Your task to perform on an android device: turn on showing notifications on the lock screen Image 0: 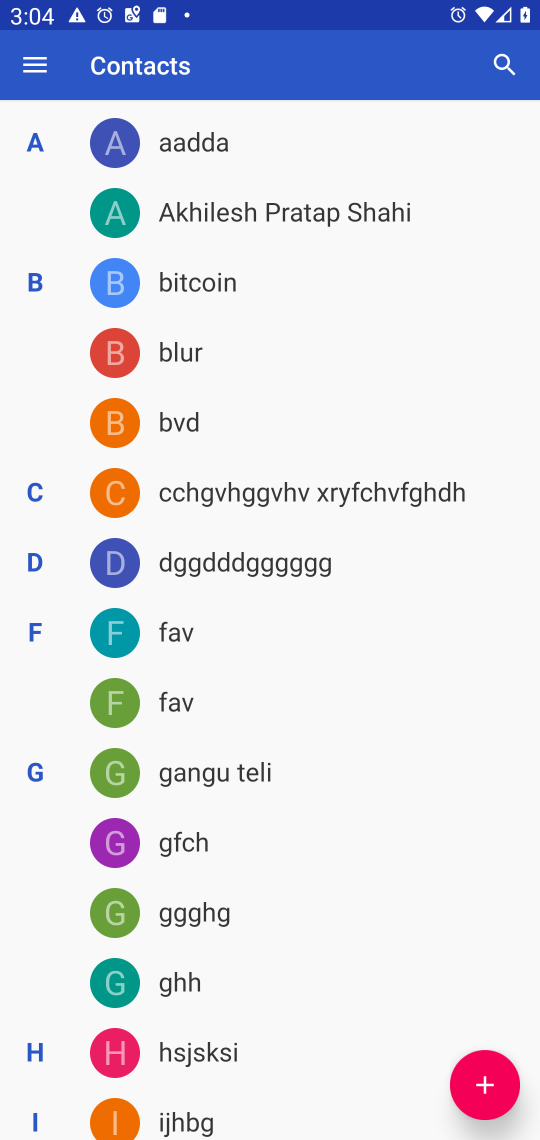
Step 0: press home button
Your task to perform on an android device: turn on showing notifications on the lock screen Image 1: 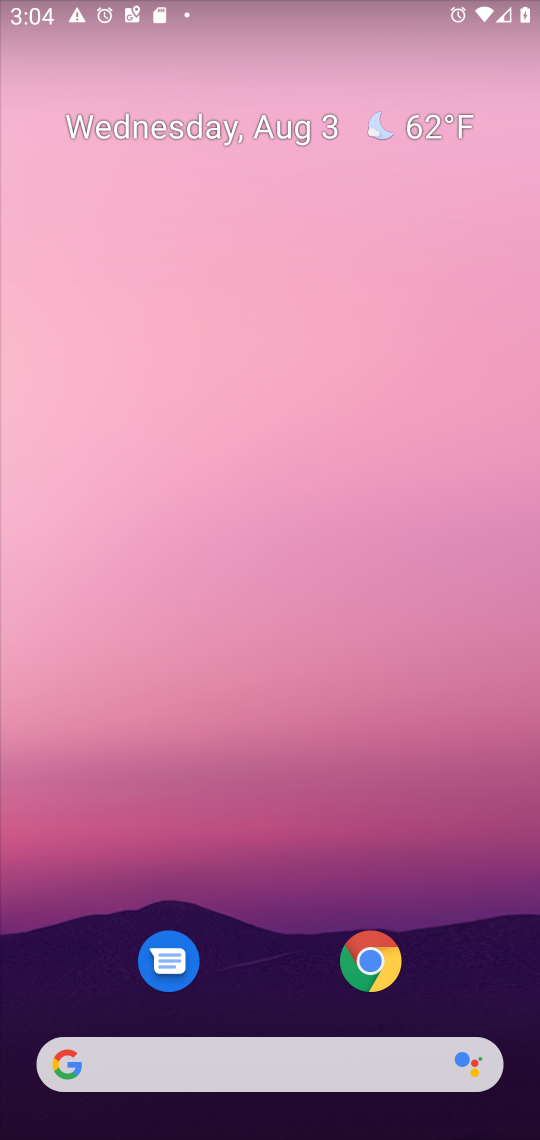
Step 1: drag from (265, 931) to (297, 93)
Your task to perform on an android device: turn on showing notifications on the lock screen Image 2: 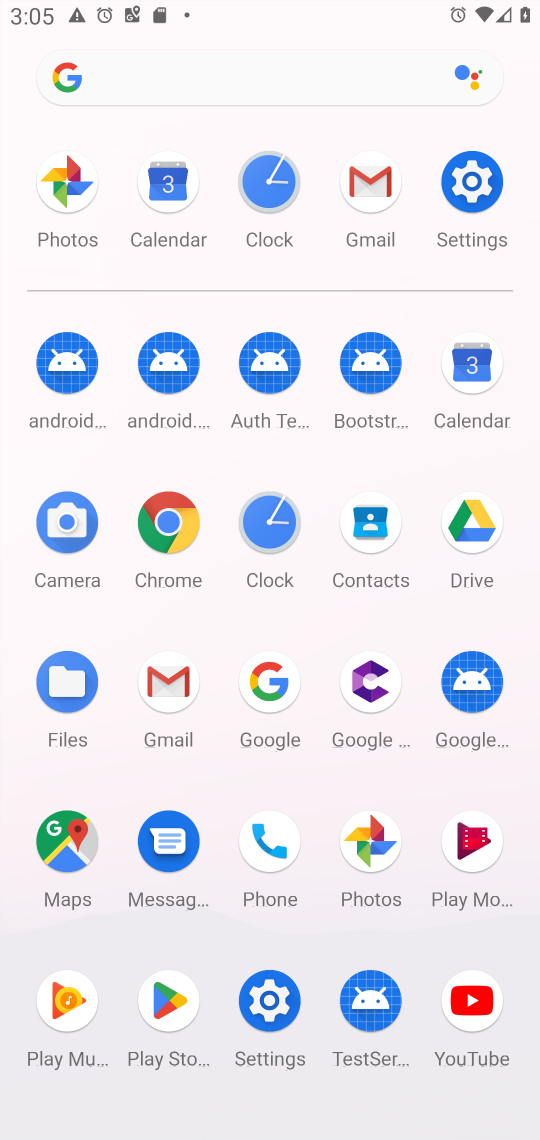
Step 2: click (469, 186)
Your task to perform on an android device: turn on showing notifications on the lock screen Image 3: 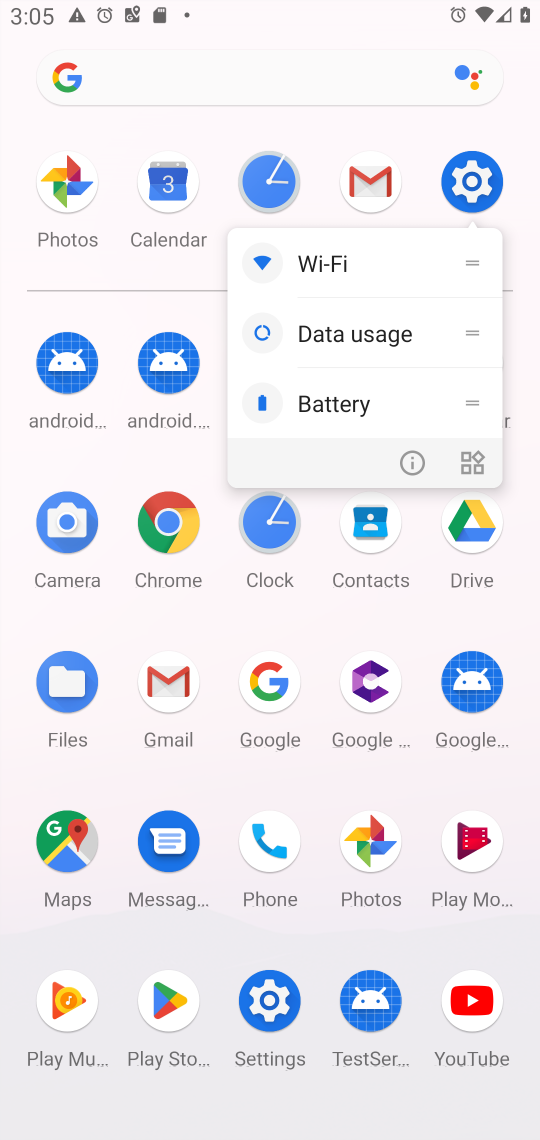
Step 3: click (469, 186)
Your task to perform on an android device: turn on showing notifications on the lock screen Image 4: 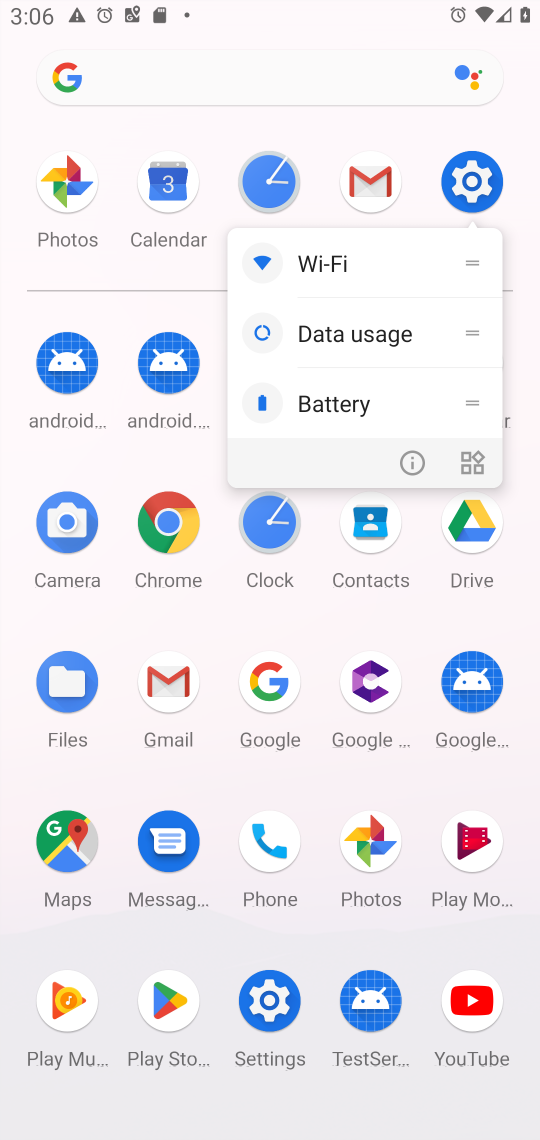
Step 4: click (469, 186)
Your task to perform on an android device: turn on showing notifications on the lock screen Image 5: 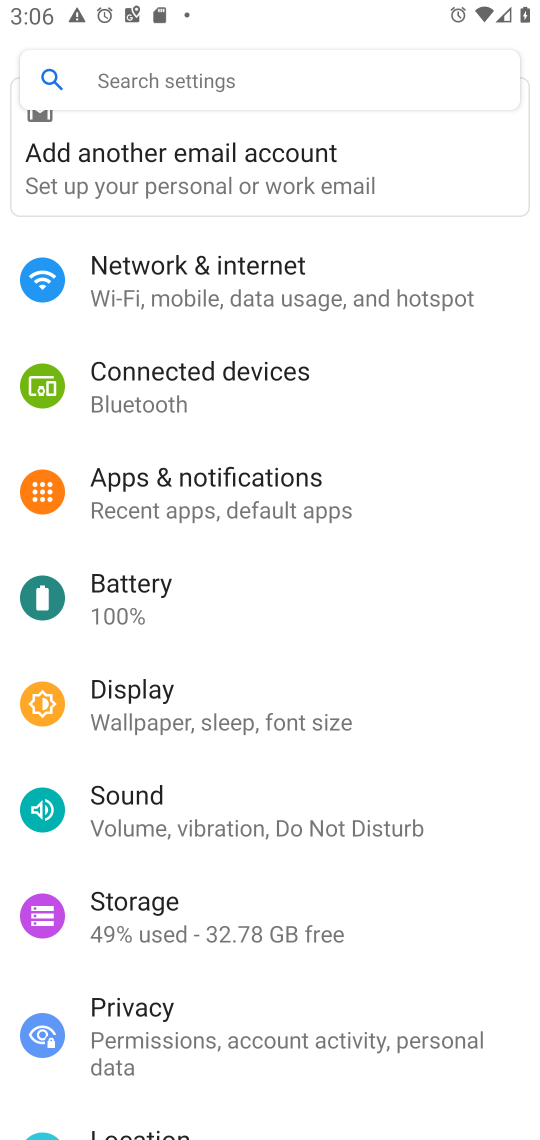
Step 5: click (177, 493)
Your task to perform on an android device: turn on showing notifications on the lock screen Image 6: 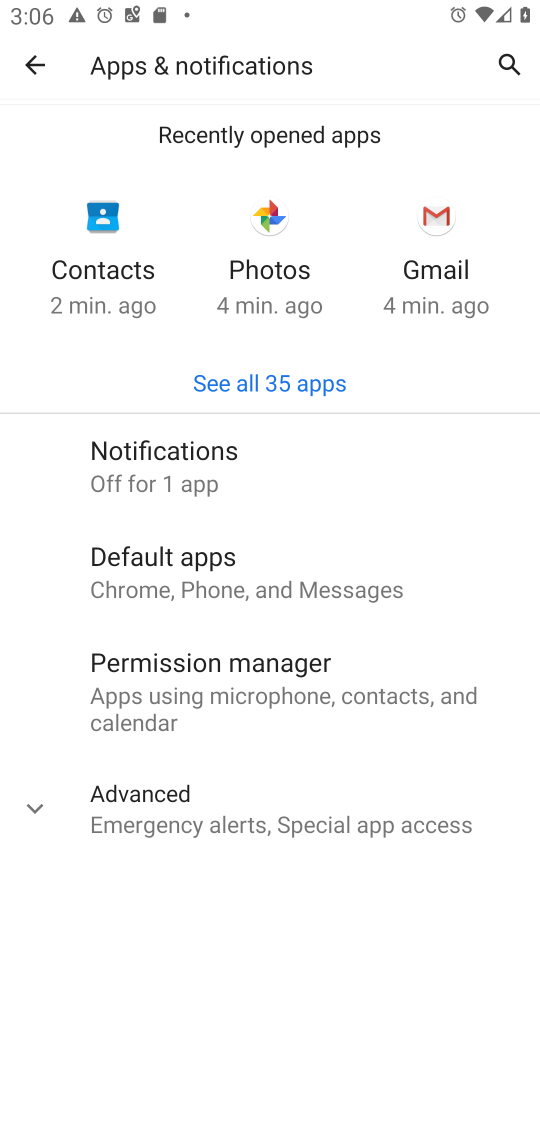
Step 6: click (168, 485)
Your task to perform on an android device: turn on showing notifications on the lock screen Image 7: 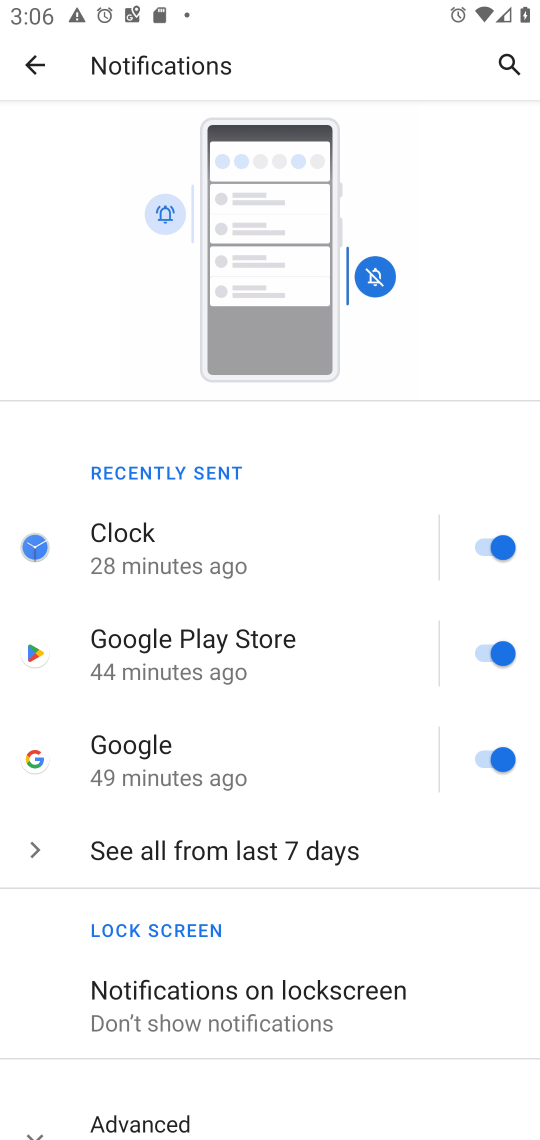
Step 7: click (195, 1009)
Your task to perform on an android device: turn on showing notifications on the lock screen Image 8: 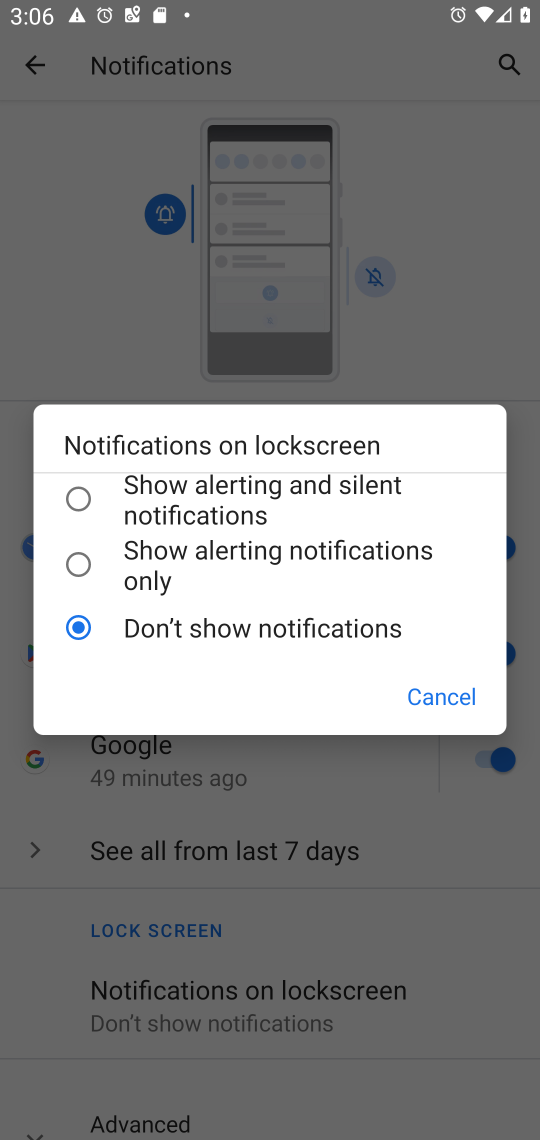
Step 8: click (76, 498)
Your task to perform on an android device: turn on showing notifications on the lock screen Image 9: 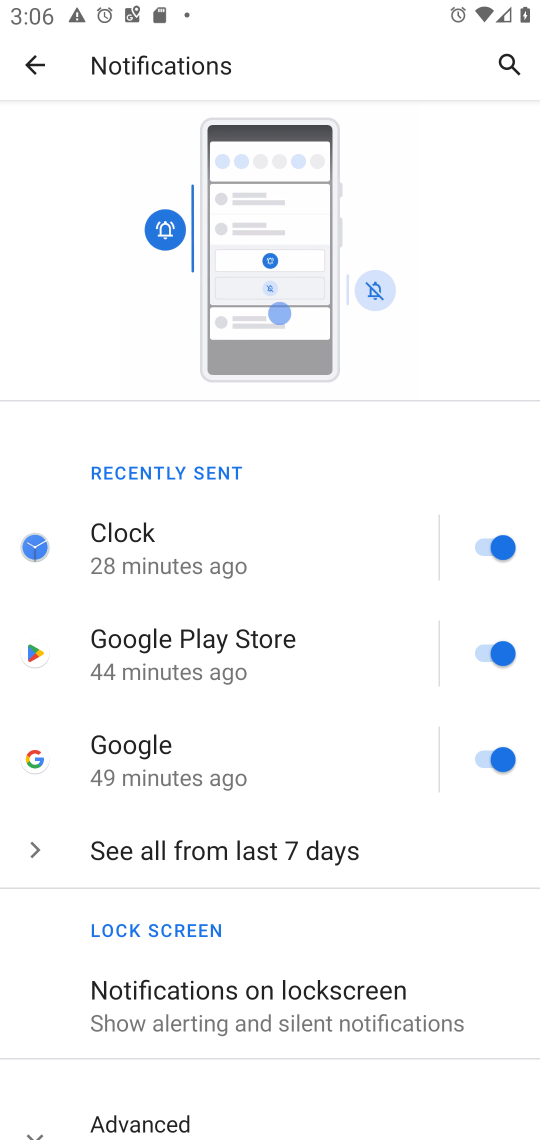
Step 9: task complete